Your task to perform on an android device: change the clock style Image 0: 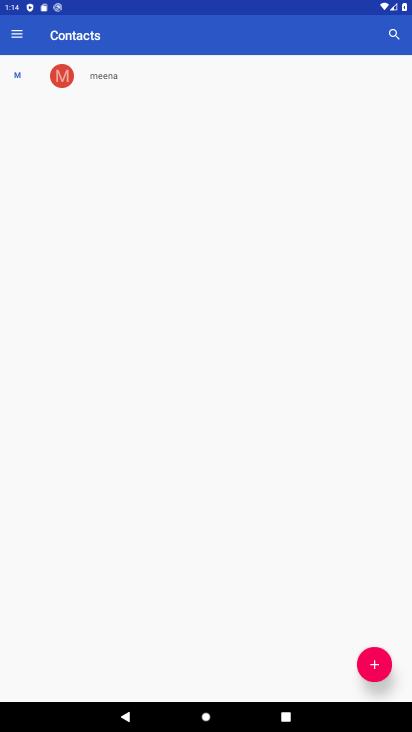
Step 0: press home button
Your task to perform on an android device: change the clock style Image 1: 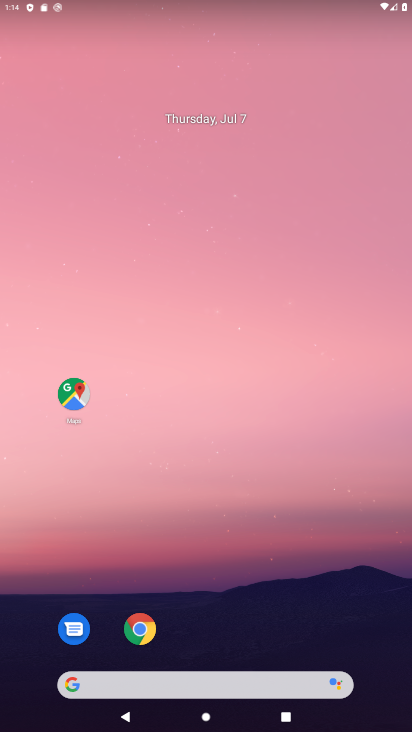
Step 1: drag from (187, 586) to (304, 5)
Your task to perform on an android device: change the clock style Image 2: 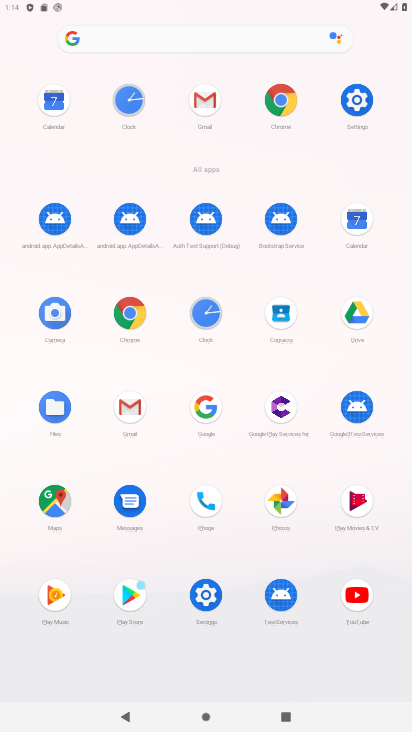
Step 2: click (206, 323)
Your task to perform on an android device: change the clock style Image 3: 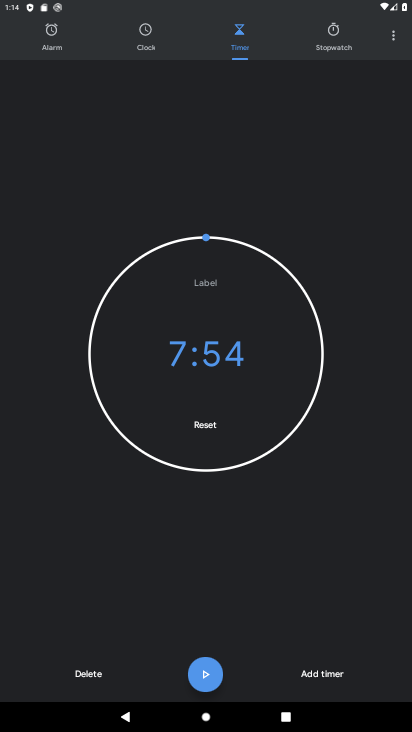
Step 3: click (393, 35)
Your task to perform on an android device: change the clock style Image 4: 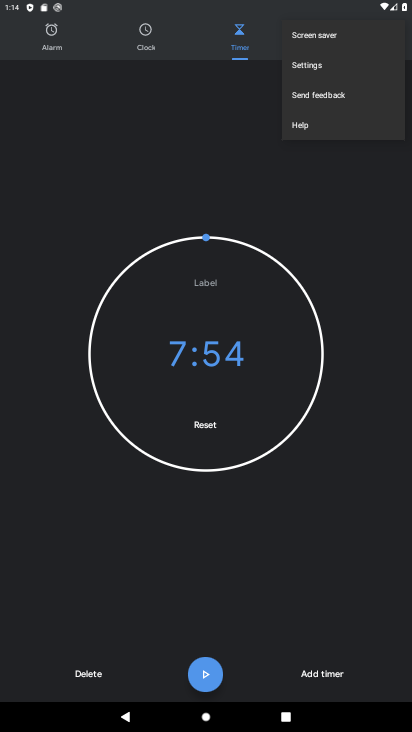
Step 4: click (312, 67)
Your task to perform on an android device: change the clock style Image 5: 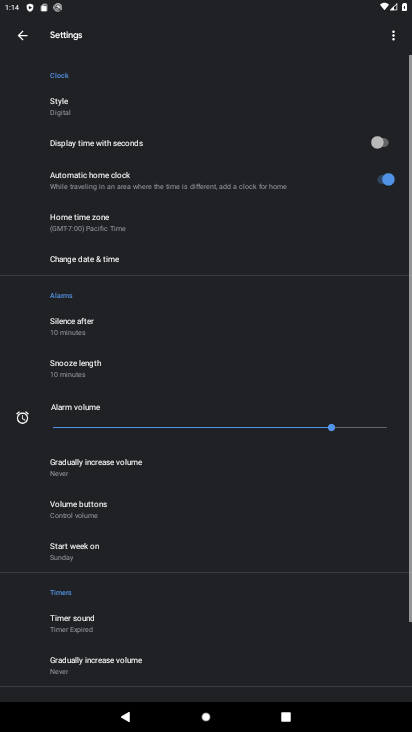
Step 5: click (73, 112)
Your task to perform on an android device: change the clock style Image 6: 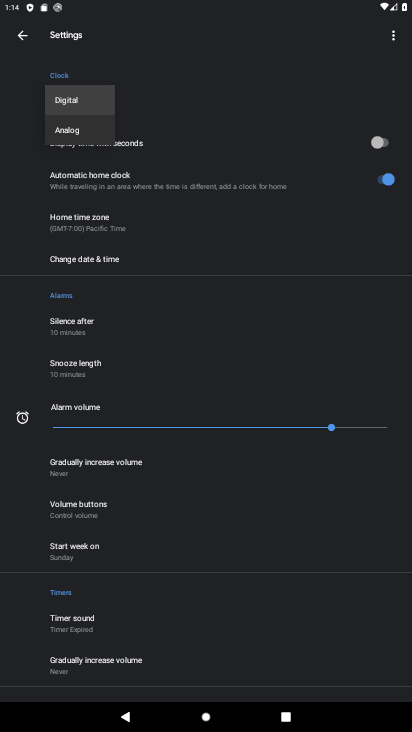
Step 6: click (80, 131)
Your task to perform on an android device: change the clock style Image 7: 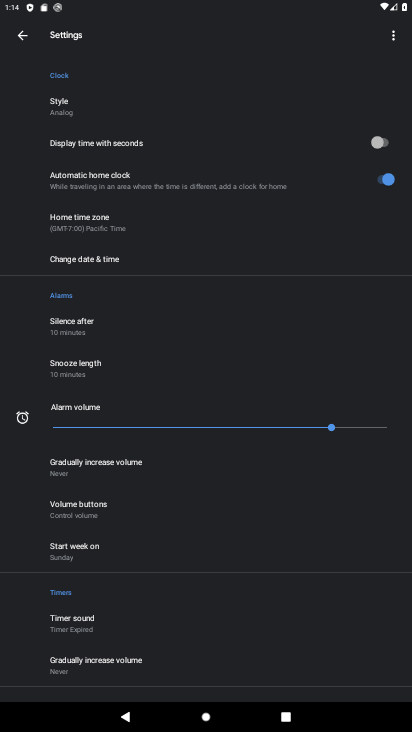
Step 7: task complete